Your task to perform on an android device: Open the calendar and show me this week's events? Image 0: 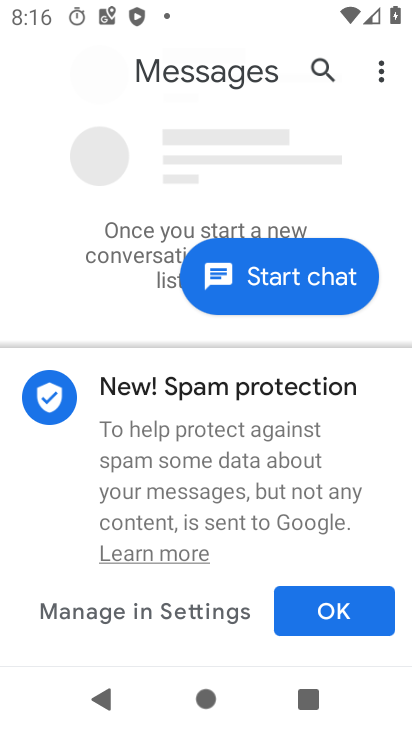
Step 0: press home button
Your task to perform on an android device: Open the calendar and show me this week's events? Image 1: 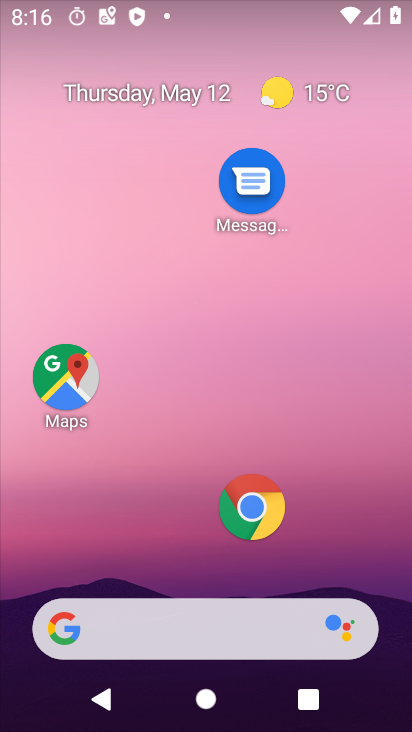
Step 1: drag from (146, 555) to (162, 116)
Your task to perform on an android device: Open the calendar and show me this week's events? Image 2: 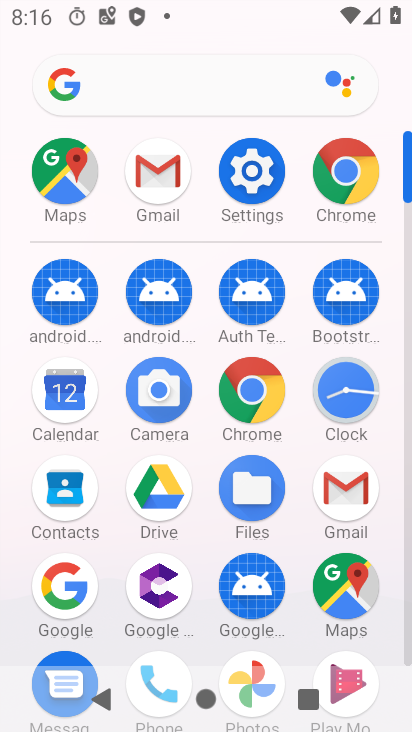
Step 2: click (64, 397)
Your task to perform on an android device: Open the calendar and show me this week's events? Image 3: 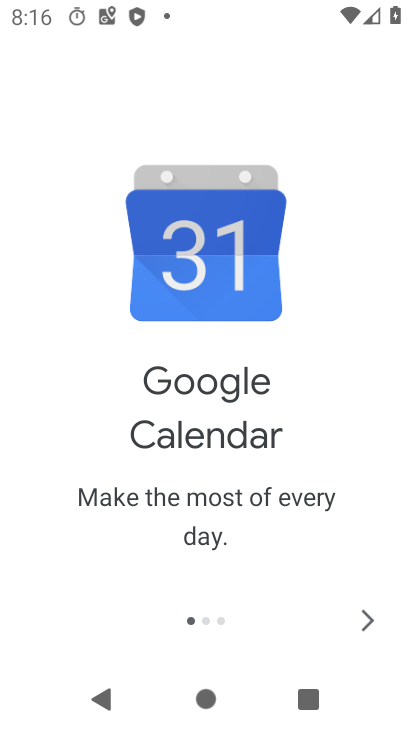
Step 3: click (360, 622)
Your task to perform on an android device: Open the calendar and show me this week's events? Image 4: 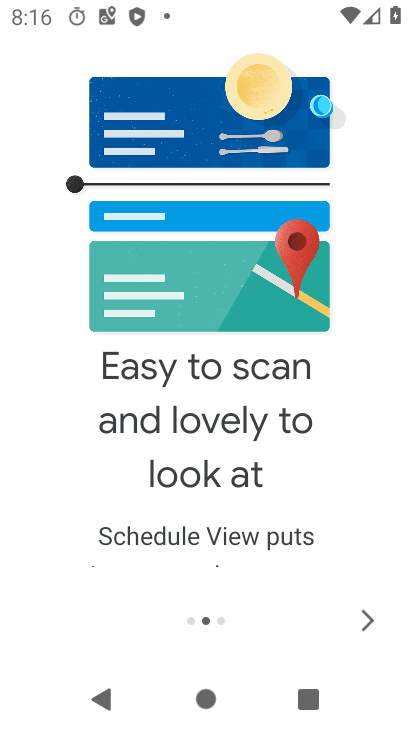
Step 4: click (360, 622)
Your task to perform on an android device: Open the calendar and show me this week's events? Image 5: 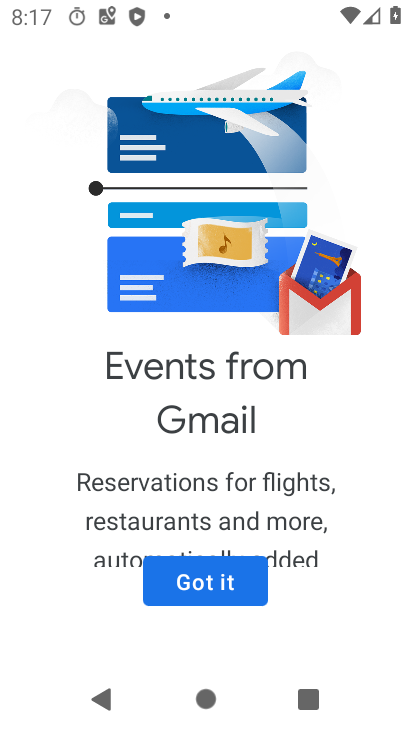
Step 5: click (226, 588)
Your task to perform on an android device: Open the calendar and show me this week's events? Image 6: 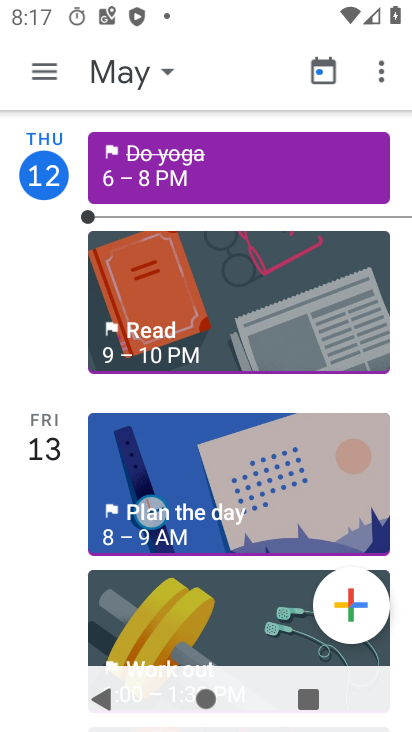
Step 6: click (132, 69)
Your task to perform on an android device: Open the calendar and show me this week's events? Image 7: 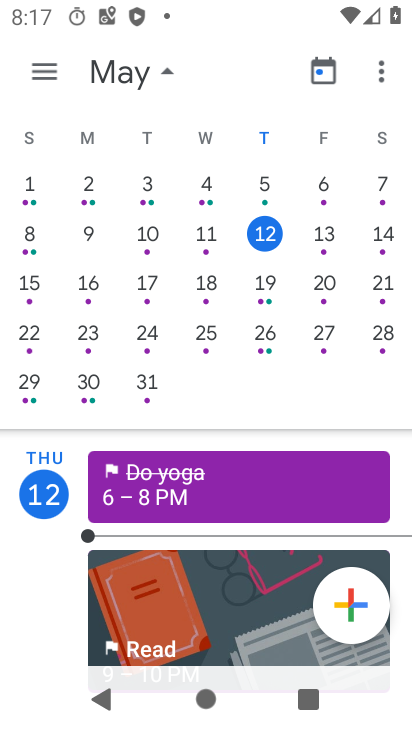
Step 7: click (319, 238)
Your task to perform on an android device: Open the calendar and show me this week's events? Image 8: 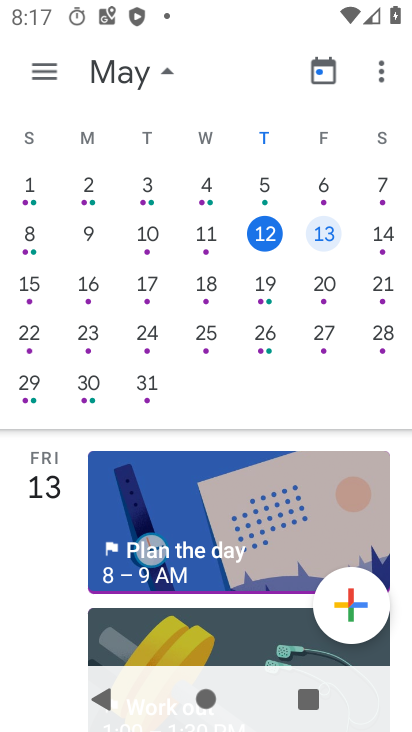
Step 8: task complete